Your task to perform on an android device: Open location settings Image 0: 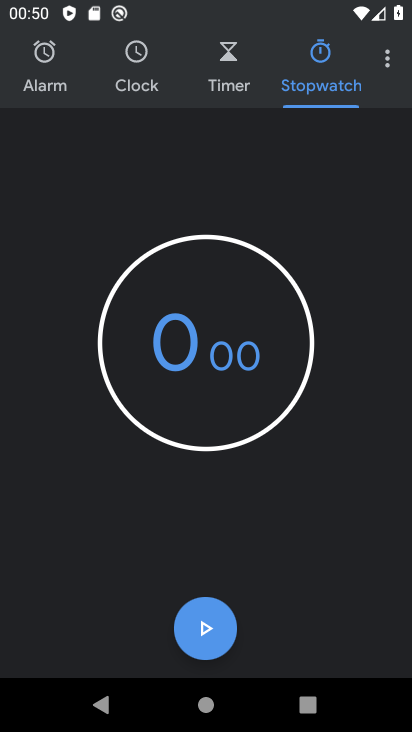
Step 0: press home button
Your task to perform on an android device: Open location settings Image 1: 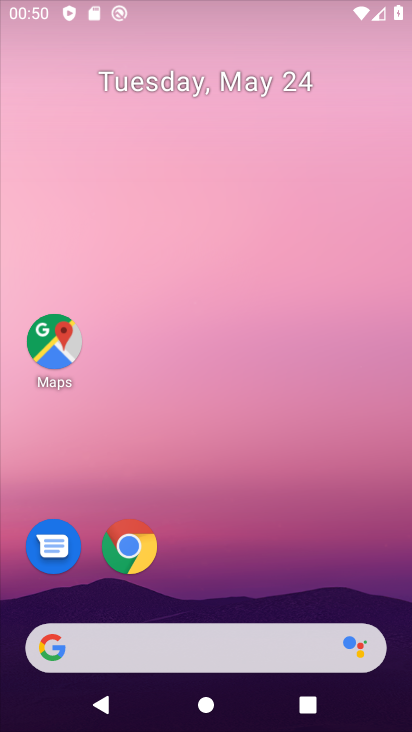
Step 1: drag from (206, 653) to (238, 3)
Your task to perform on an android device: Open location settings Image 2: 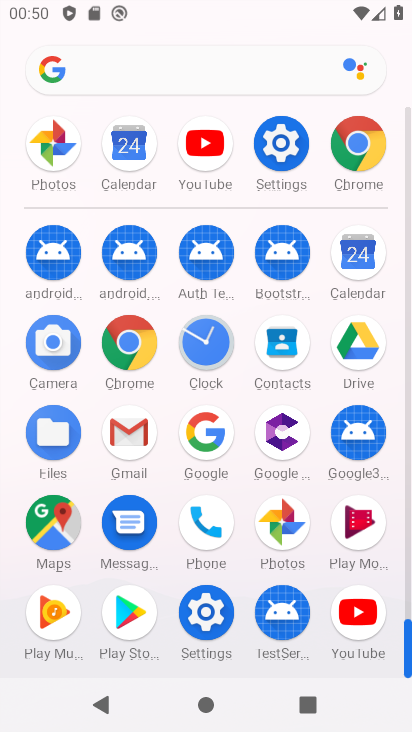
Step 2: click (282, 155)
Your task to perform on an android device: Open location settings Image 3: 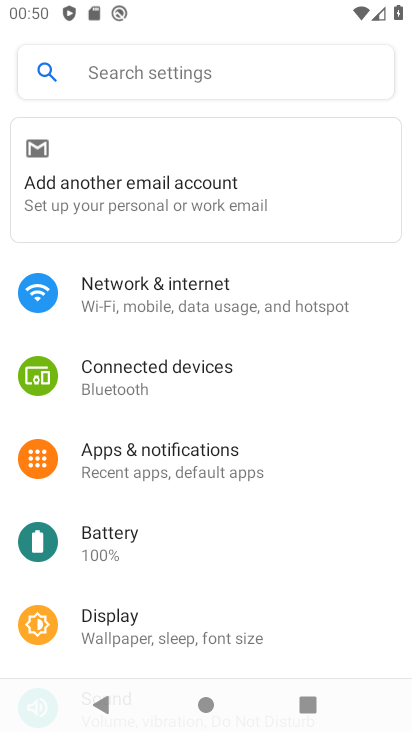
Step 3: drag from (271, 583) to (324, 211)
Your task to perform on an android device: Open location settings Image 4: 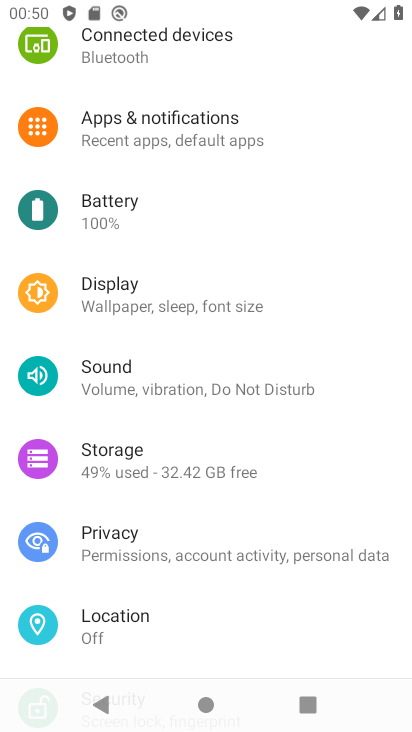
Step 4: click (156, 635)
Your task to perform on an android device: Open location settings Image 5: 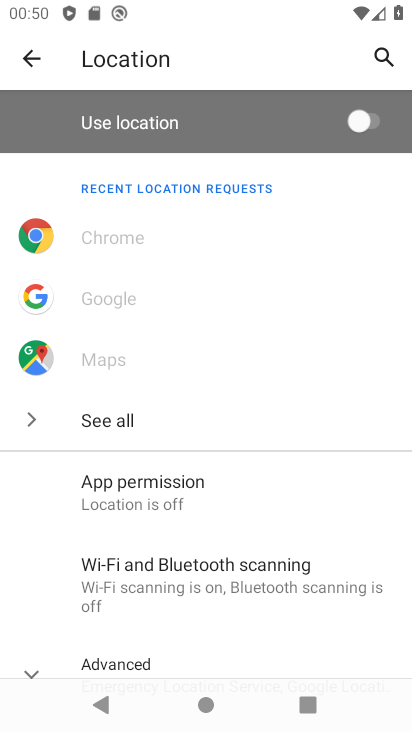
Step 5: task complete